Your task to perform on an android device: check google app version Image 0: 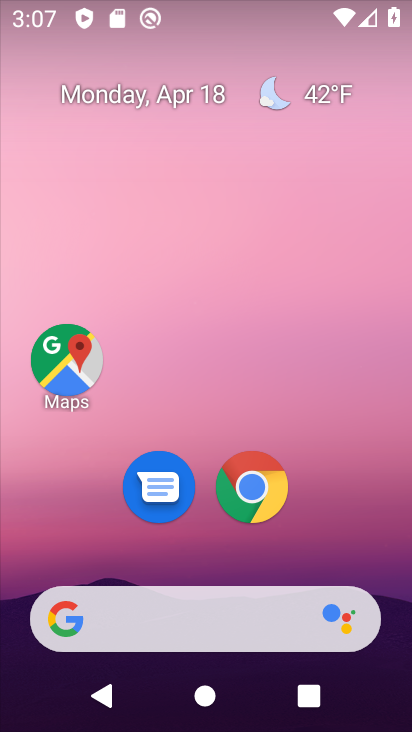
Step 0: drag from (220, 559) to (161, 1)
Your task to perform on an android device: check google app version Image 1: 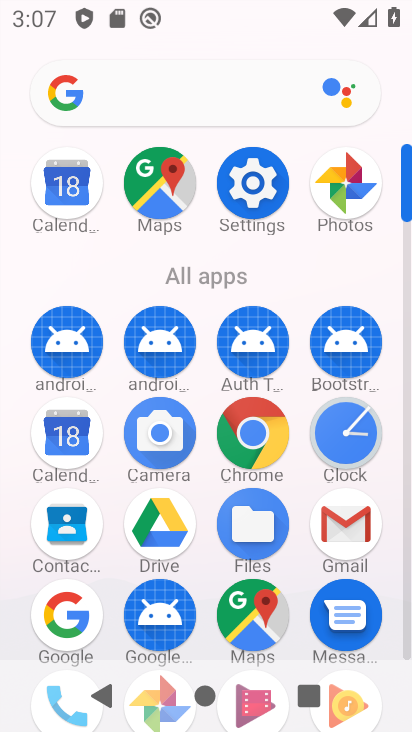
Step 1: click (67, 627)
Your task to perform on an android device: check google app version Image 2: 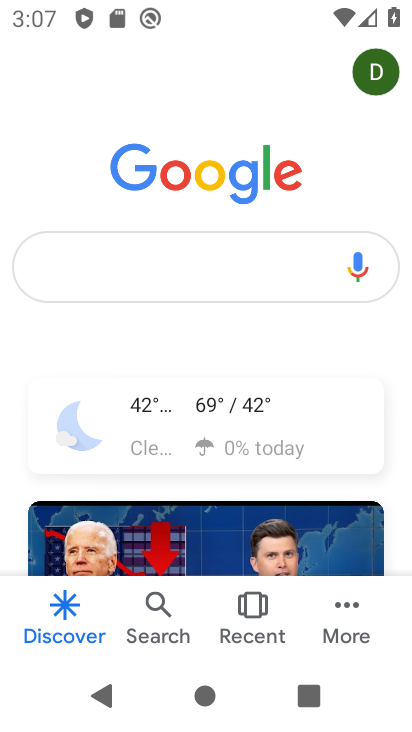
Step 2: click (347, 606)
Your task to perform on an android device: check google app version Image 3: 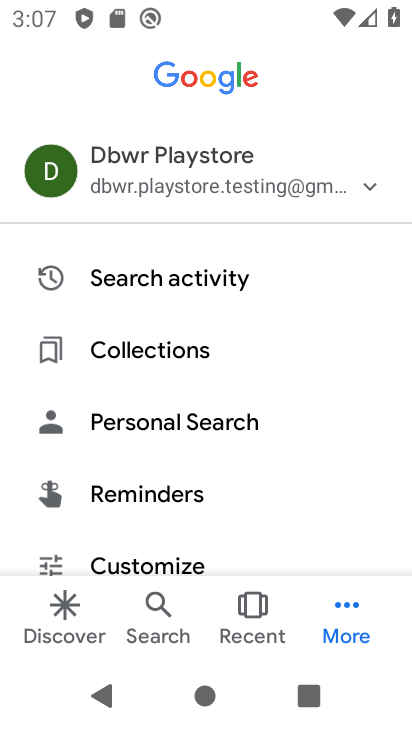
Step 3: drag from (222, 479) to (201, 193)
Your task to perform on an android device: check google app version Image 4: 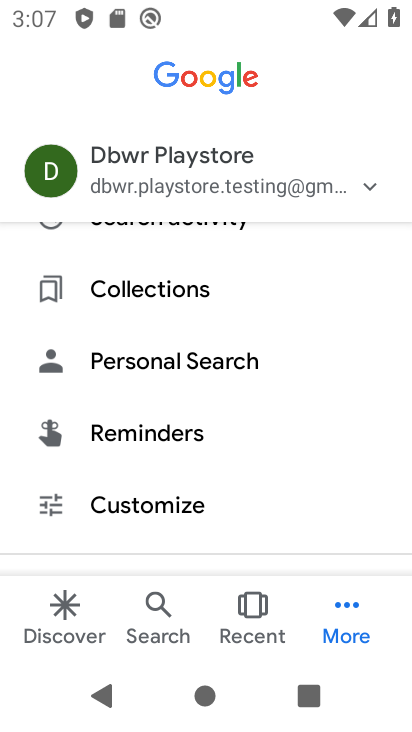
Step 4: click (224, 206)
Your task to perform on an android device: check google app version Image 5: 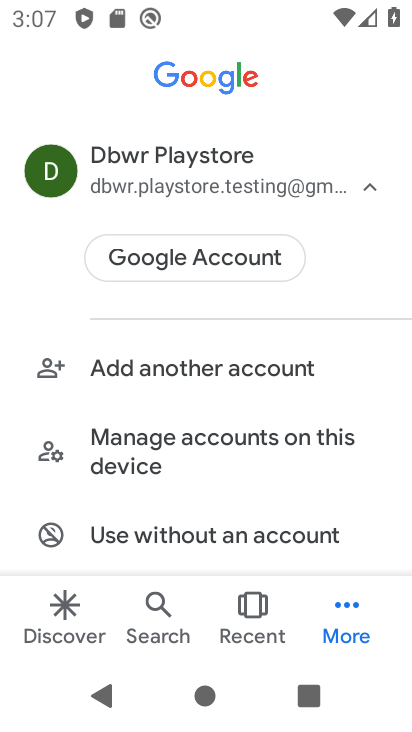
Step 5: drag from (212, 487) to (203, 247)
Your task to perform on an android device: check google app version Image 6: 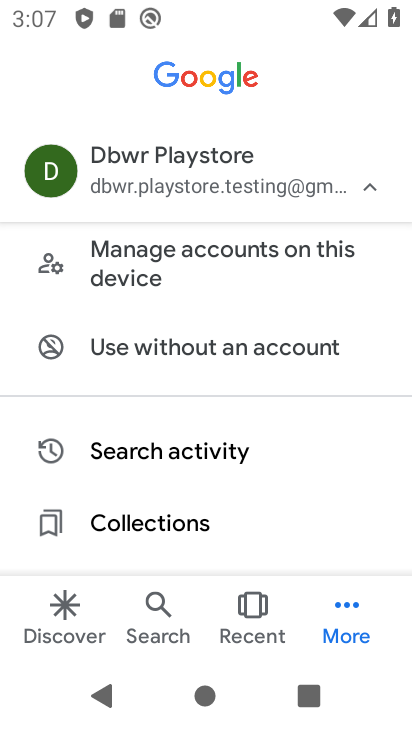
Step 6: drag from (201, 491) to (224, 268)
Your task to perform on an android device: check google app version Image 7: 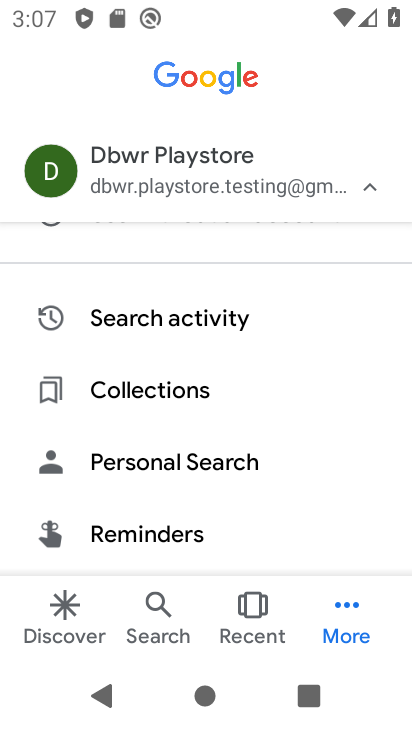
Step 7: drag from (221, 258) to (223, 194)
Your task to perform on an android device: check google app version Image 8: 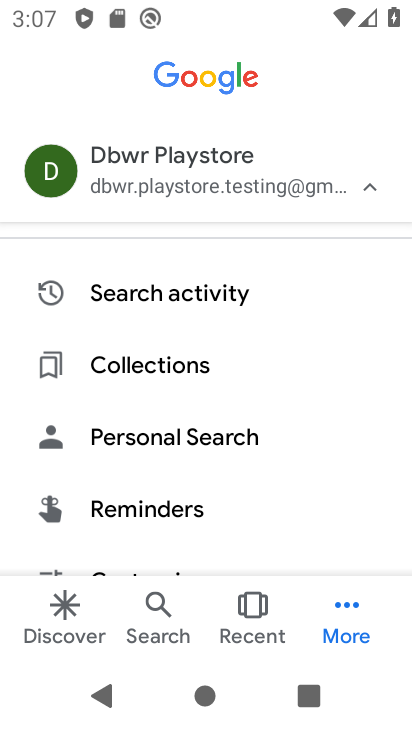
Step 8: drag from (256, 520) to (244, 187)
Your task to perform on an android device: check google app version Image 9: 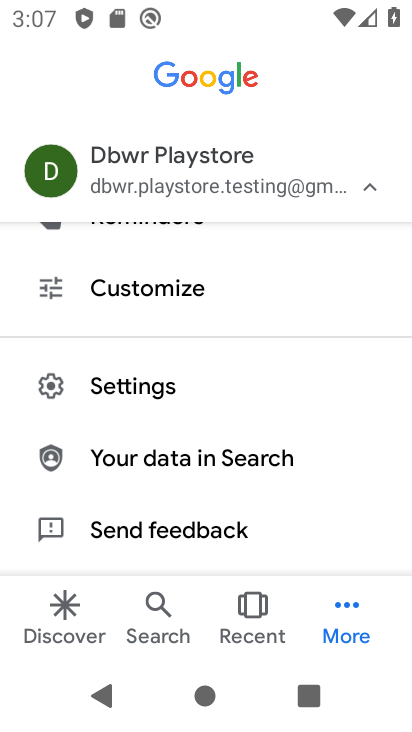
Step 9: drag from (248, 500) to (249, 250)
Your task to perform on an android device: check google app version Image 10: 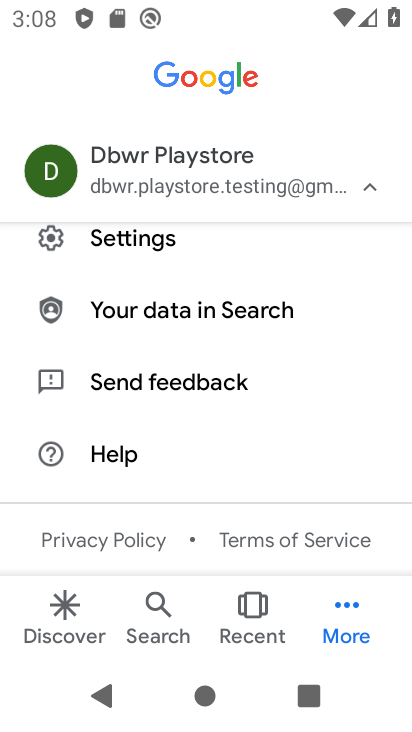
Step 10: drag from (213, 468) to (225, 252)
Your task to perform on an android device: check google app version Image 11: 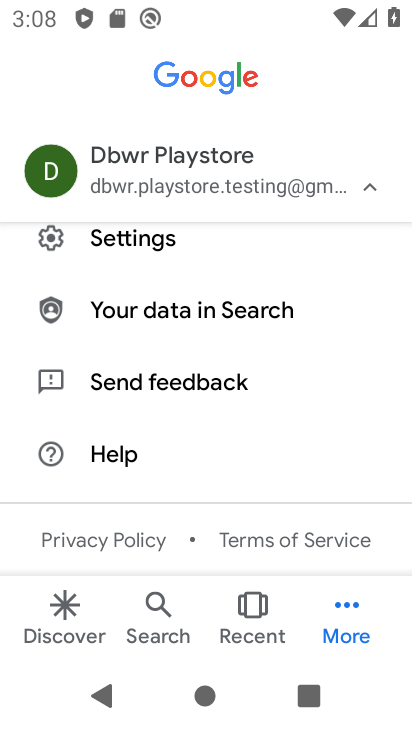
Step 11: click (145, 260)
Your task to perform on an android device: check google app version Image 12: 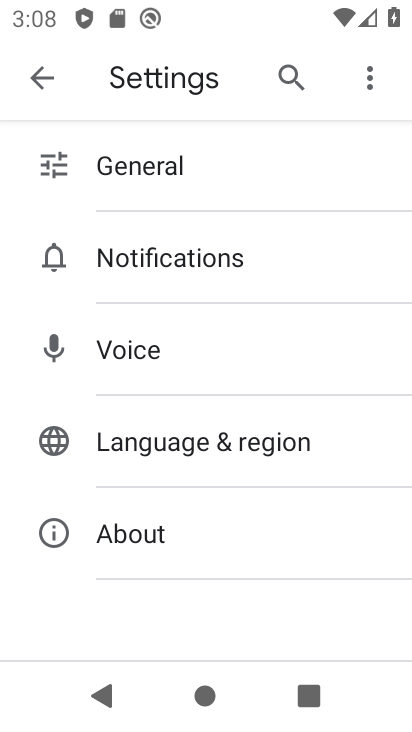
Step 12: click (200, 554)
Your task to perform on an android device: check google app version Image 13: 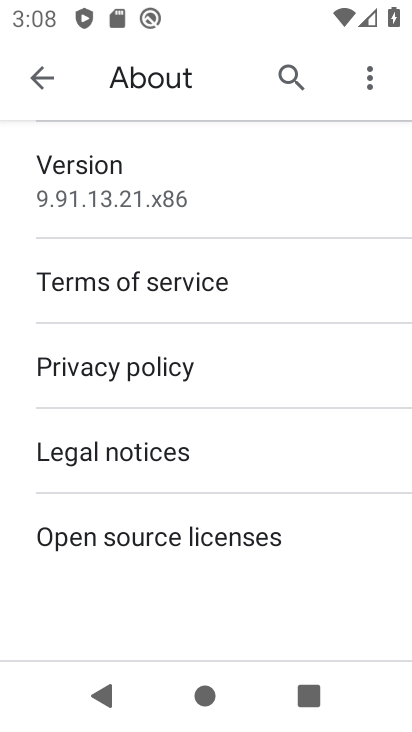
Step 13: click (132, 189)
Your task to perform on an android device: check google app version Image 14: 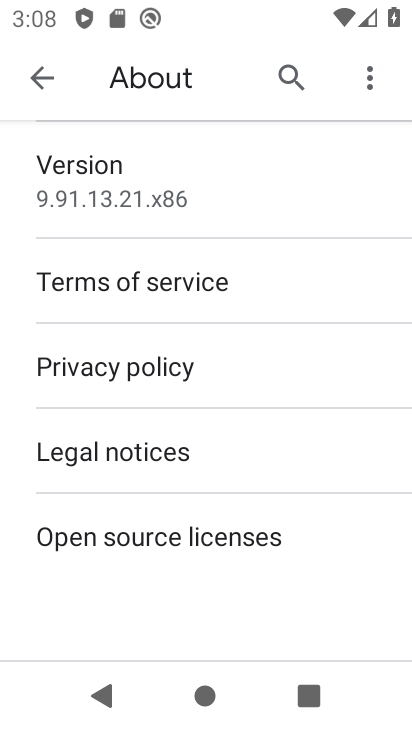
Step 14: task complete